Your task to perform on an android device: uninstall "TextNow: Call + Text Unlimited" Image 0: 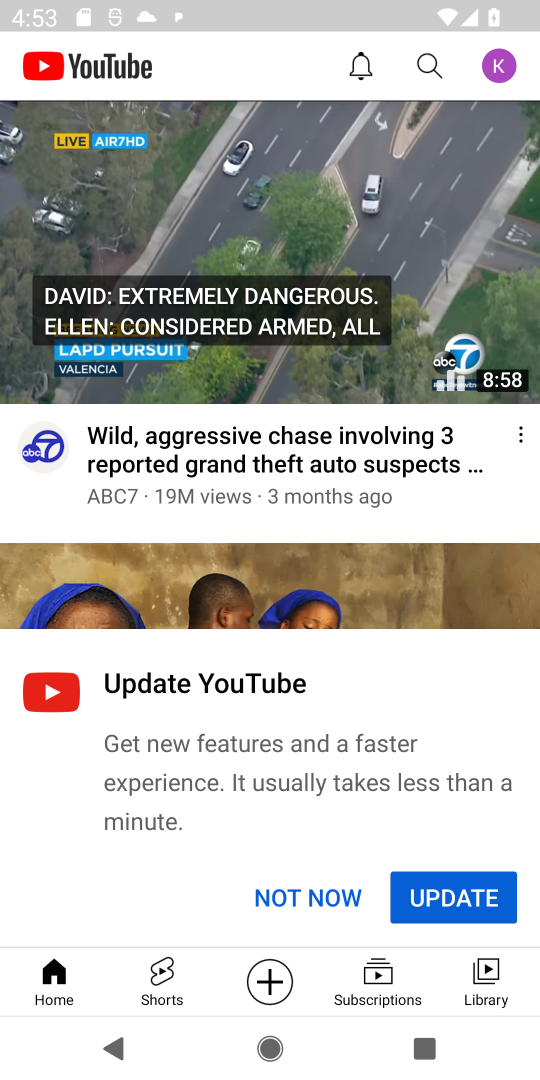
Step 0: press back button
Your task to perform on an android device: uninstall "TextNow: Call + Text Unlimited" Image 1: 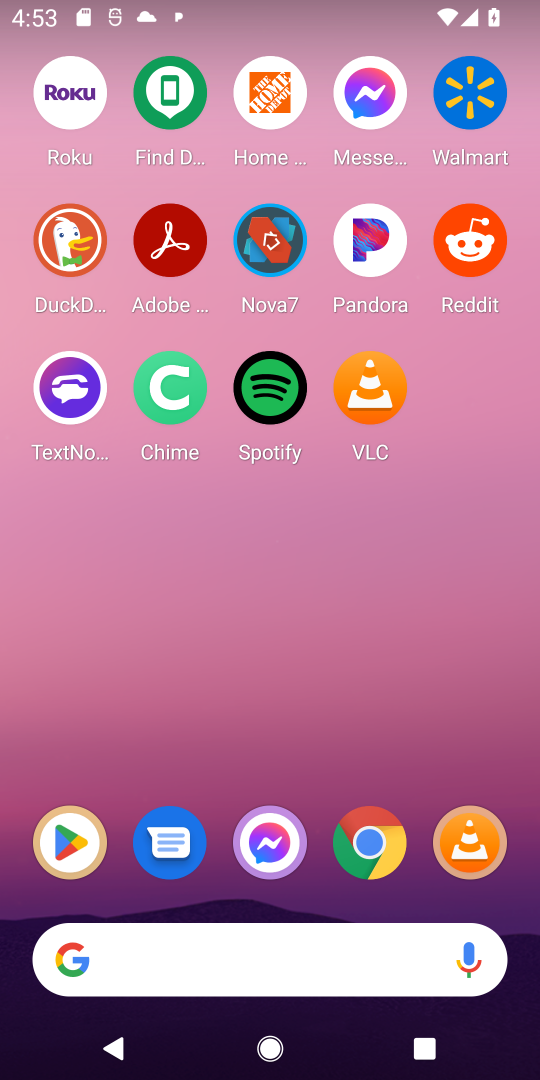
Step 1: press back button
Your task to perform on an android device: uninstall "TextNow: Call + Text Unlimited" Image 2: 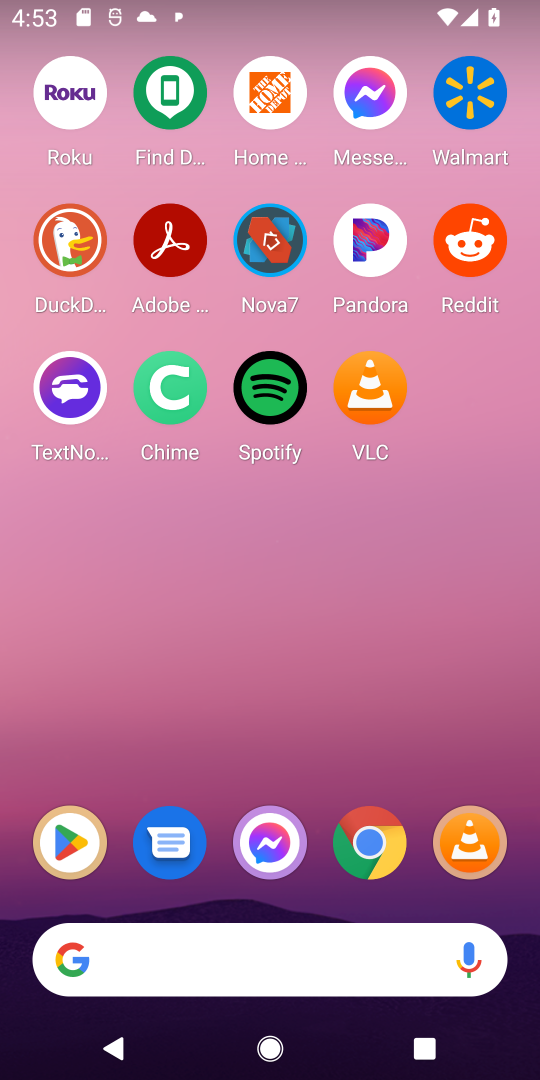
Step 2: click (67, 827)
Your task to perform on an android device: uninstall "TextNow: Call + Text Unlimited" Image 3: 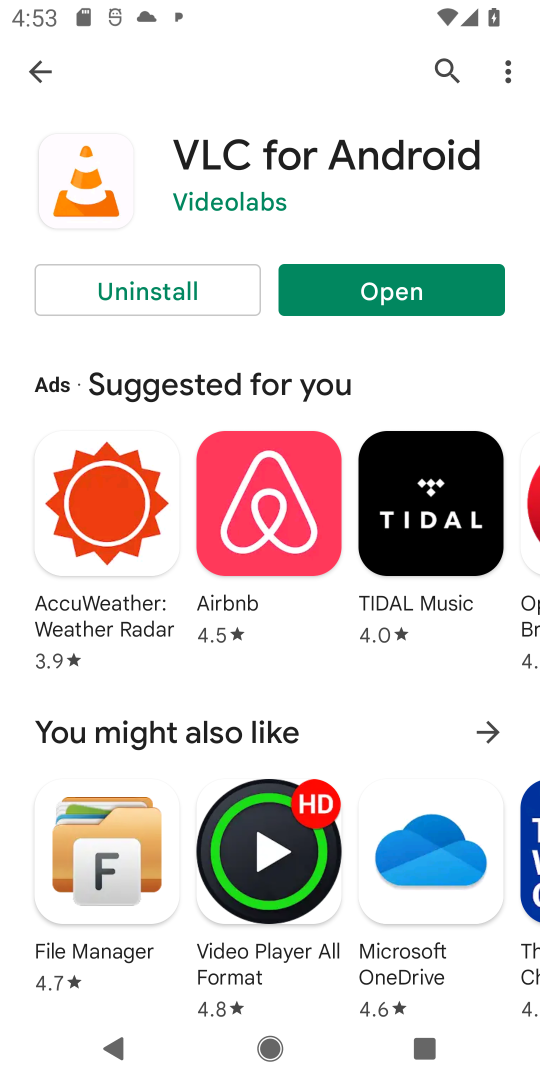
Step 3: click (447, 60)
Your task to perform on an android device: uninstall "TextNow: Call + Text Unlimited" Image 4: 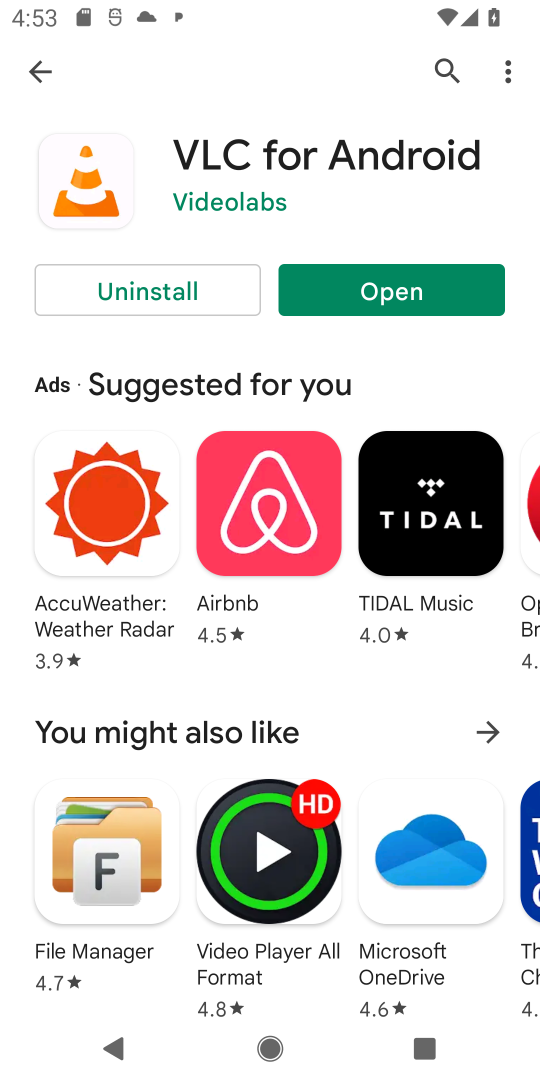
Step 4: click (447, 72)
Your task to perform on an android device: uninstall "TextNow: Call + Text Unlimited" Image 5: 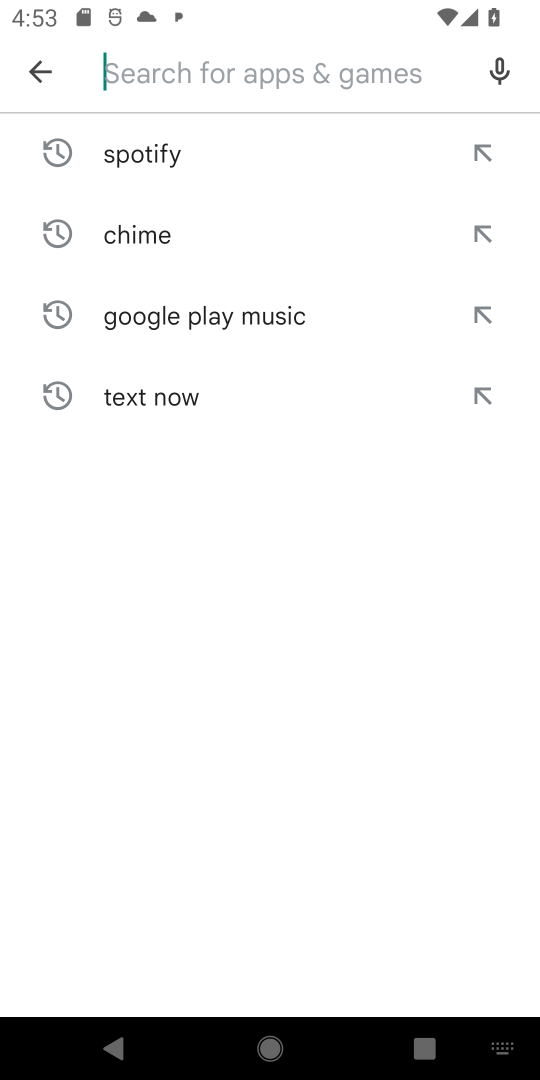
Step 5: click (285, 71)
Your task to perform on an android device: uninstall "TextNow: Call + Text Unlimited" Image 6: 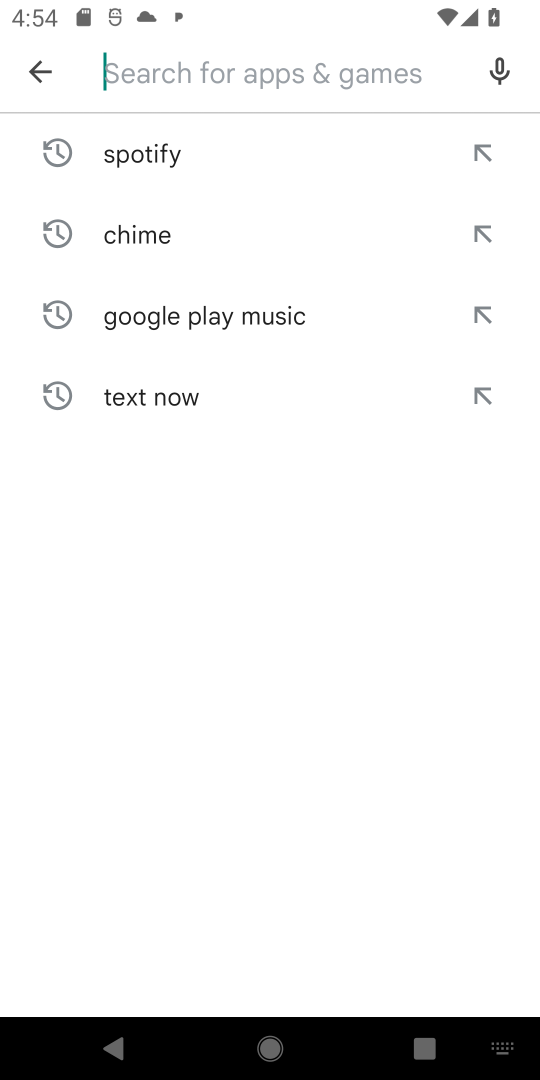
Step 6: type "textnow"
Your task to perform on an android device: uninstall "TextNow: Call + Text Unlimited" Image 7: 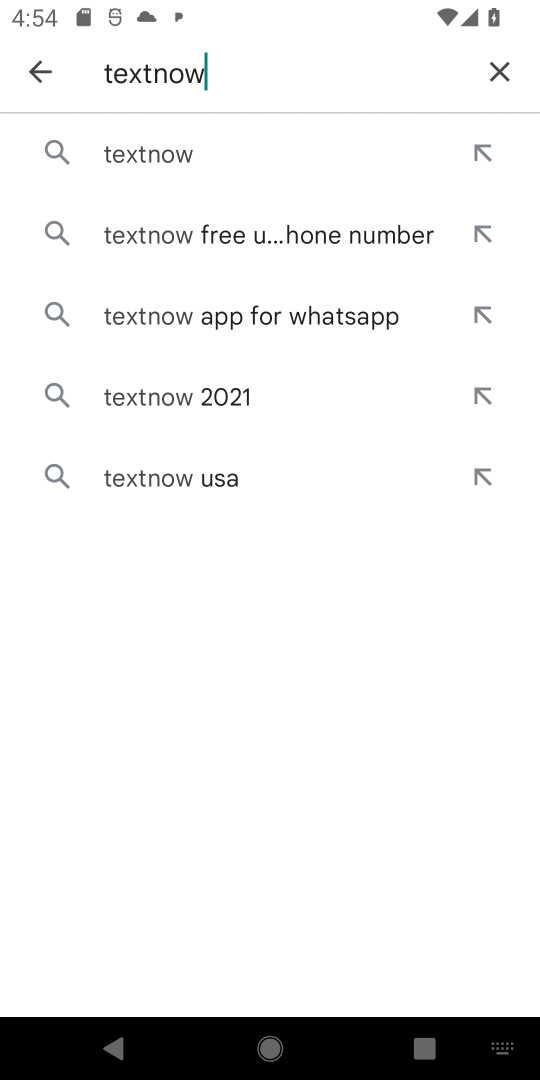
Step 7: click (193, 162)
Your task to perform on an android device: uninstall "TextNow: Call + Text Unlimited" Image 8: 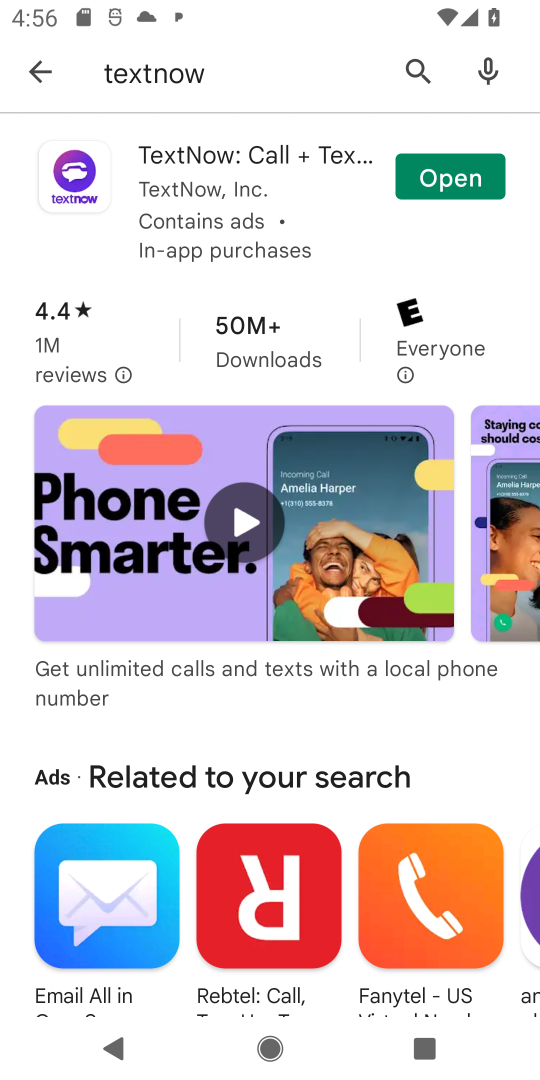
Step 8: click (150, 183)
Your task to perform on an android device: uninstall "TextNow: Call + Text Unlimited" Image 9: 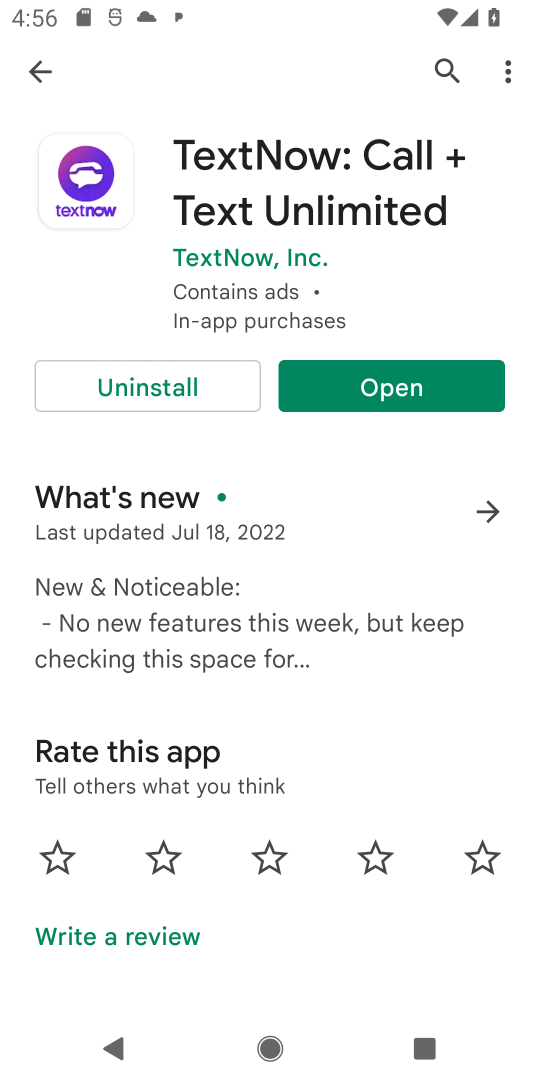
Step 9: click (140, 400)
Your task to perform on an android device: uninstall "TextNow: Call + Text Unlimited" Image 10: 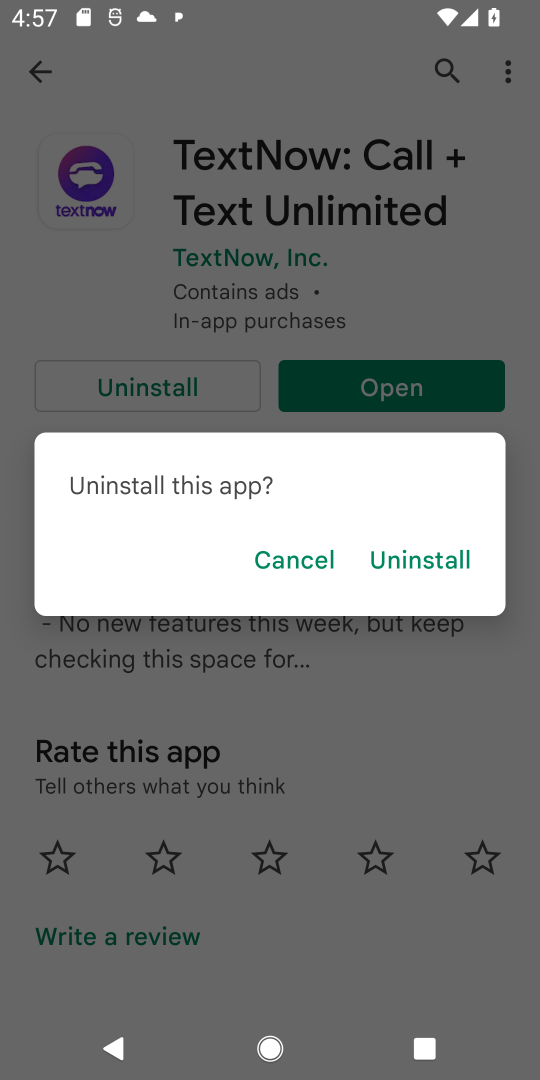
Step 10: click (458, 567)
Your task to perform on an android device: uninstall "TextNow: Call + Text Unlimited" Image 11: 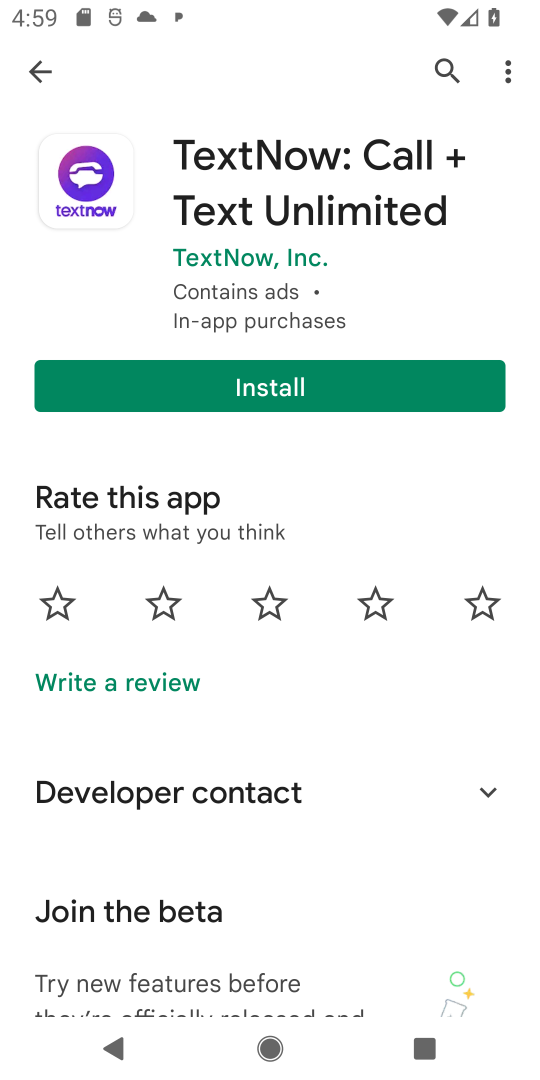
Step 11: task complete